Your task to perform on an android device: change timer sound Image 0: 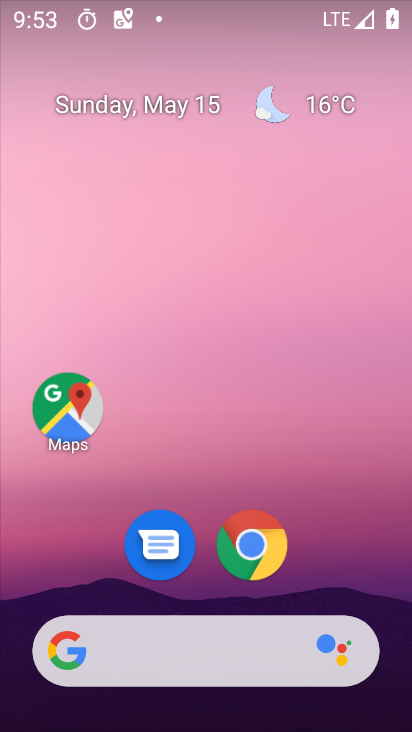
Step 0: drag from (329, 543) to (395, 81)
Your task to perform on an android device: change timer sound Image 1: 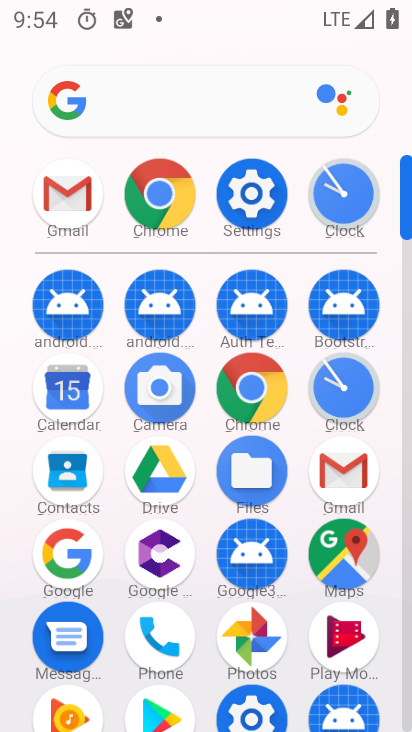
Step 1: drag from (197, 662) to (181, 403)
Your task to perform on an android device: change timer sound Image 2: 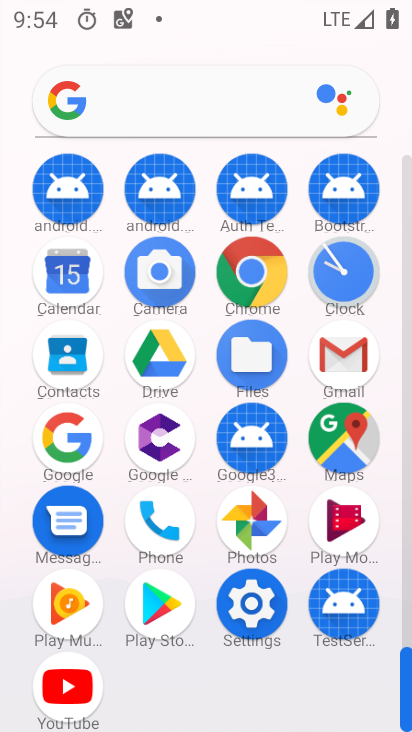
Step 2: click (343, 272)
Your task to perform on an android device: change timer sound Image 3: 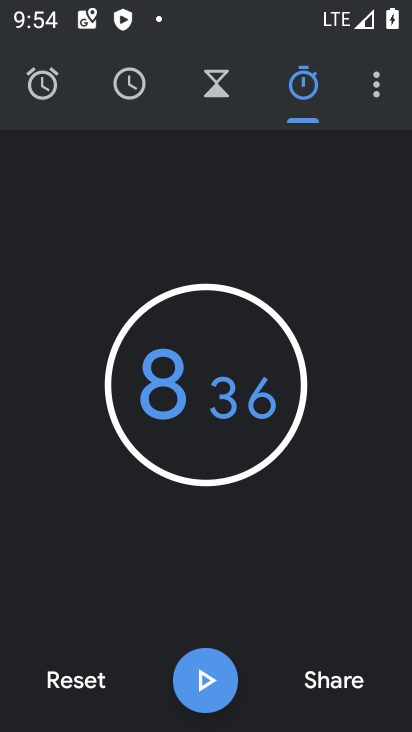
Step 3: click (379, 87)
Your task to perform on an android device: change timer sound Image 4: 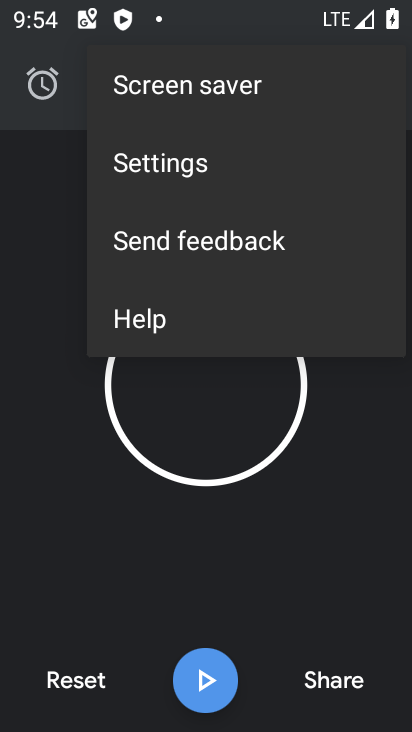
Step 4: click (183, 161)
Your task to perform on an android device: change timer sound Image 5: 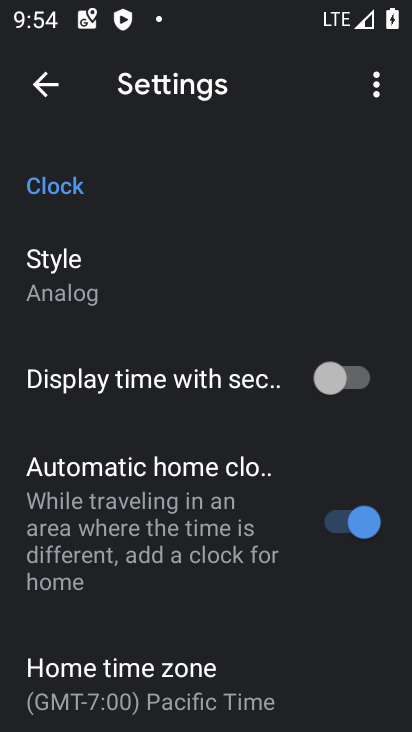
Step 5: drag from (160, 617) to (216, 428)
Your task to perform on an android device: change timer sound Image 6: 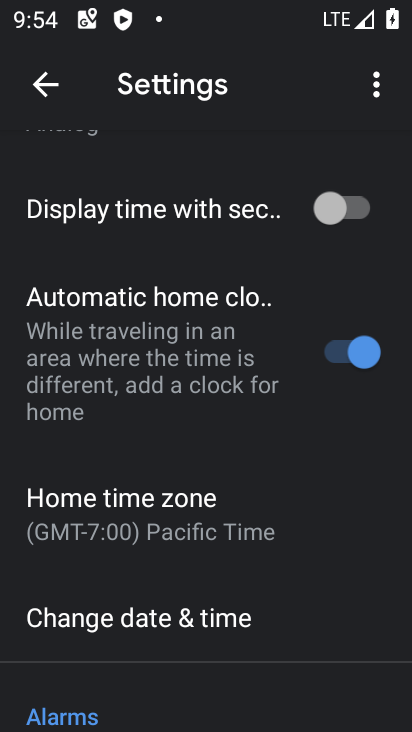
Step 6: drag from (137, 586) to (187, 444)
Your task to perform on an android device: change timer sound Image 7: 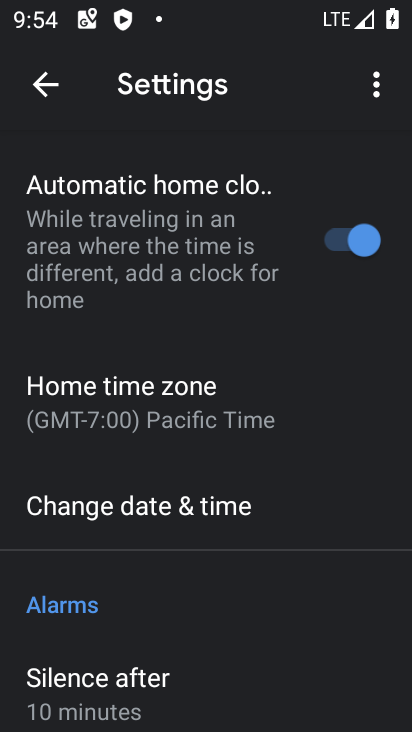
Step 7: drag from (132, 613) to (197, 465)
Your task to perform on an android device: change timer sound Image 8: 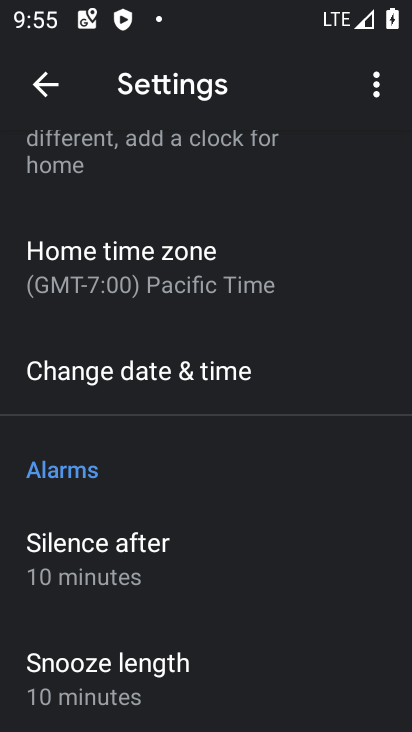
Step 8: drag from (124, 626) to (178, 460)
Your task to perform on an android device: change timer sound Image 9: 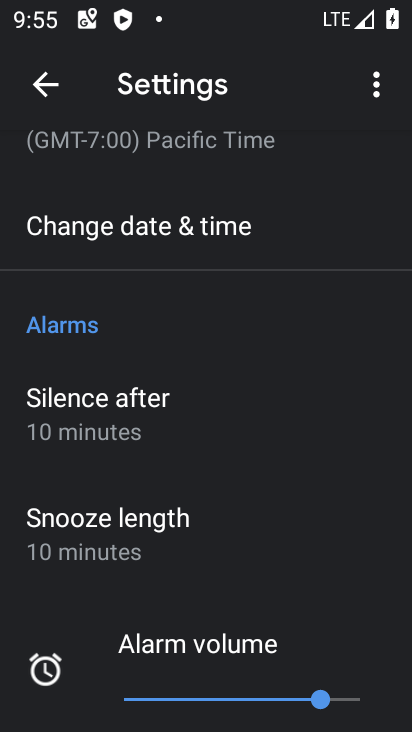
Step 9: drag from (95, 603) to (166, 426)
Your task to perform on an android device: change timer sound Image 10: 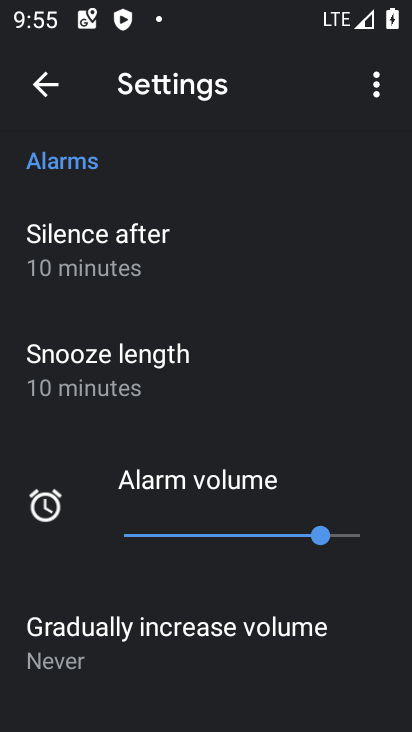
Step 10: drag from (119, 689) to (226, 437)
Your task to perform on an android device: change timer sound Image 11: 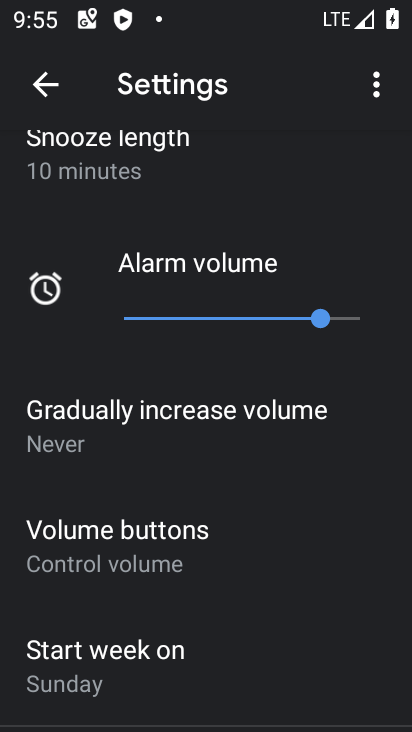
Step 11: drag from (108, 608) to (211, 465)
Your task to perform on an android device: change timer sound Image 12: 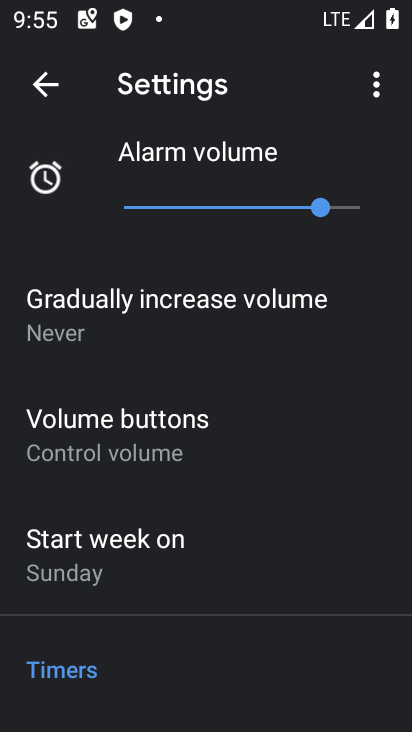
Step 12: drag from (131, 653) to (254, 484)
Your task to perform on an android device: change timer sound Image 13: 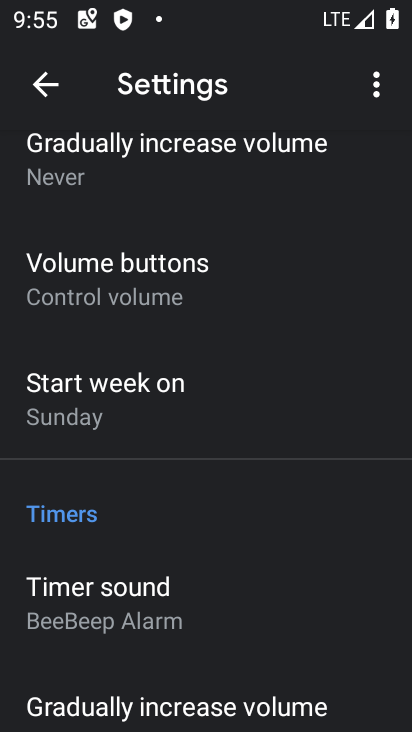
Step 13: click (130, 591)
Your task to perform on an android device: change timer sound Image 14: 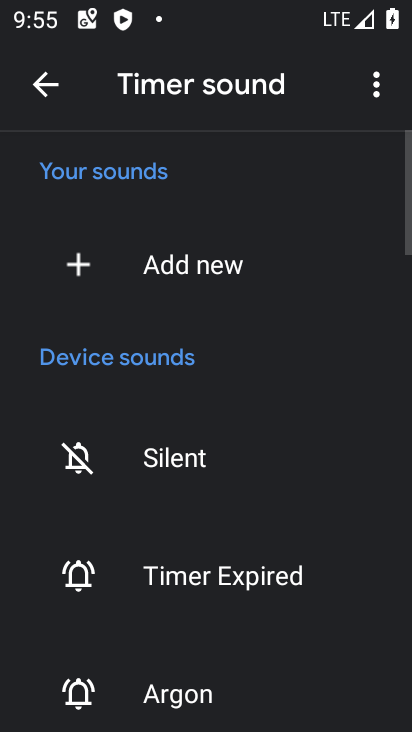
Step 14: drag from (174, 618) to (274, 441)
Your task to perform on an android device: change timer sound Image 15: 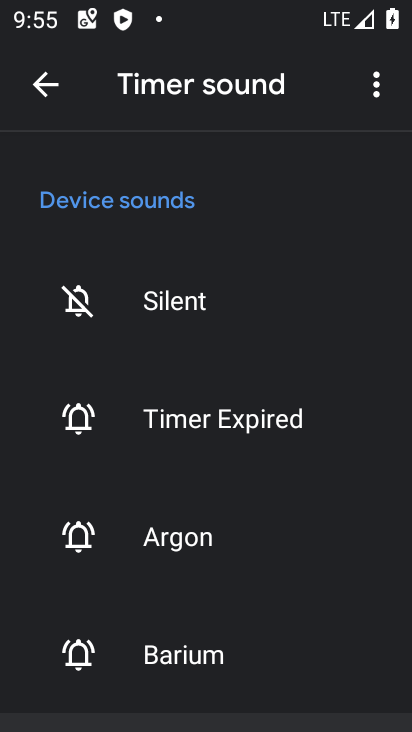
Step 15: click (207, 535)
Your task to perform on an android device: change timer sound Image 16: 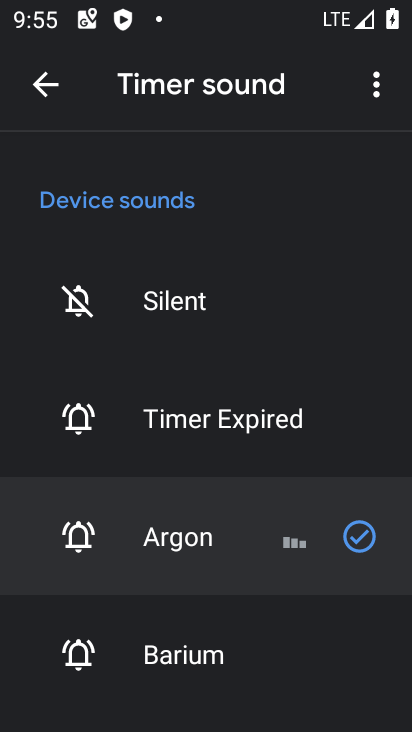
Step 16: task complete